Your task to perform on an android device: turn notification dots off Image 0: 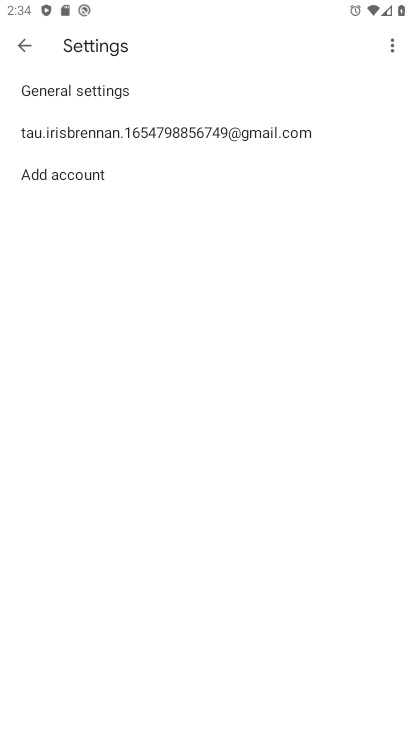
Step 0: press home button
Your task to perform on an android device: turn notification dots off Image 1: 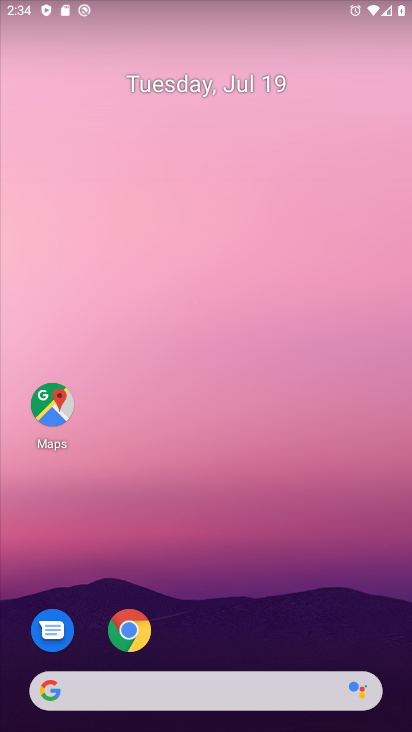
Step 1: drag from (246, 633) to (206, 115)
Your task to perform on an android device: turn notification dots off Image 2: 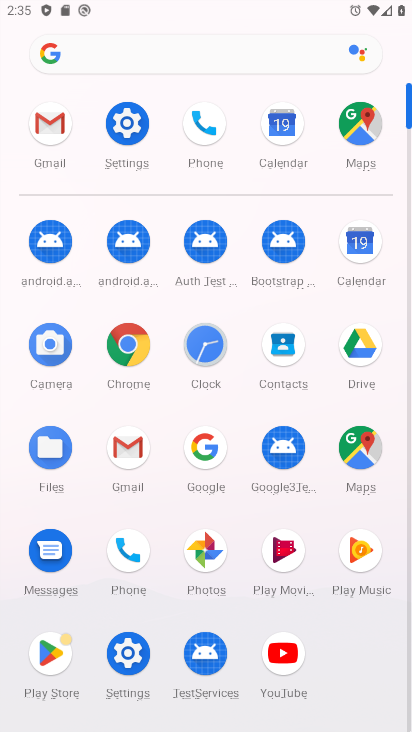
Step 2: click (132, 120)
Your task to perform on an android device: turn notification dots off Image 3: 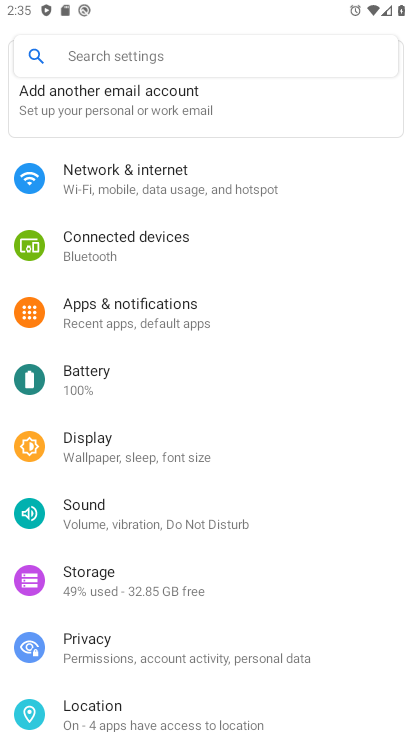
Step 3: click (160, 310)
Your task to perform on an android device: turn notification dots off Image 4: 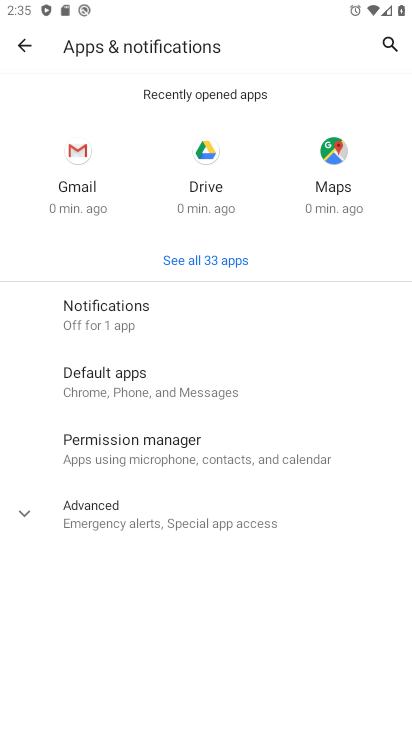
Step 4: click (128, 322)
Your task to perform on an android device: turn notification dots off Image 5: 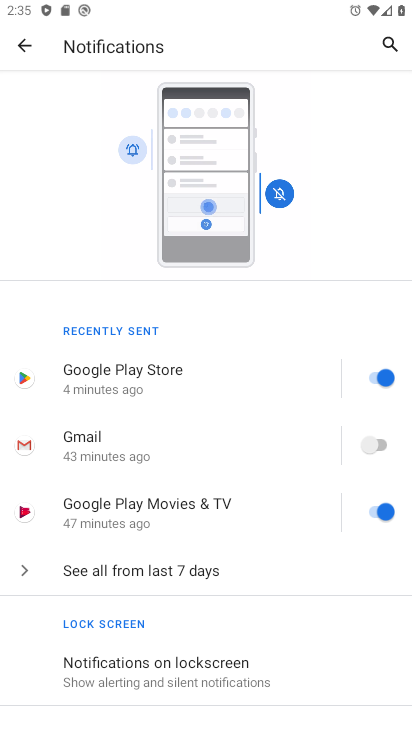
Step 5: drag from (245, 582) to (237, 162)
Your task to perform on an android device: turn notification dots off Image 6: 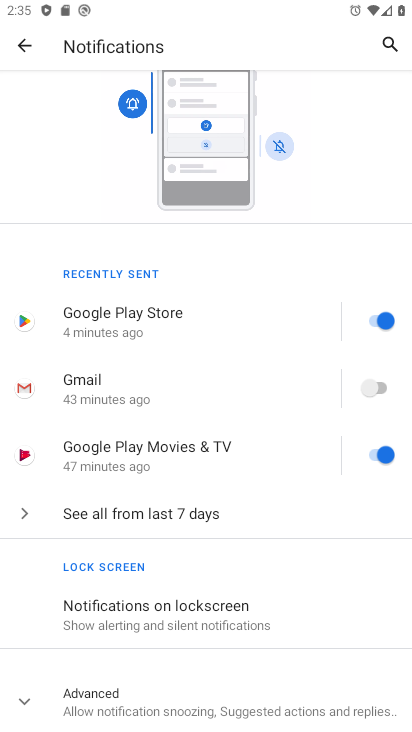
Step 6: click (18, 695)
Your task to perform on an android device: turn notification dots off Image 7: 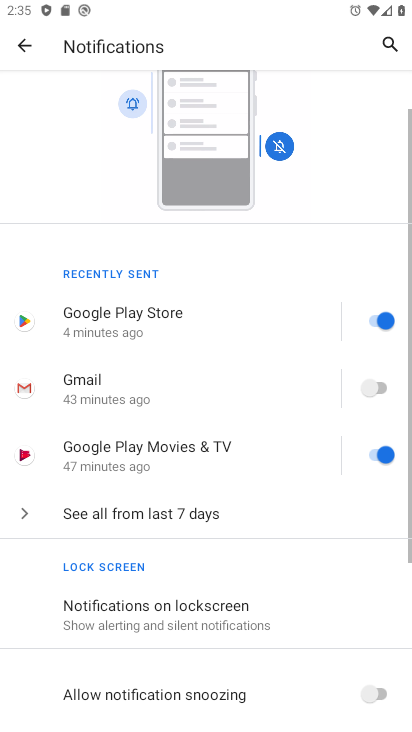
Step 7: drag from (185, 665) to (197, 360)
Your task to perform on an android device: turn notification dots off Image 8: 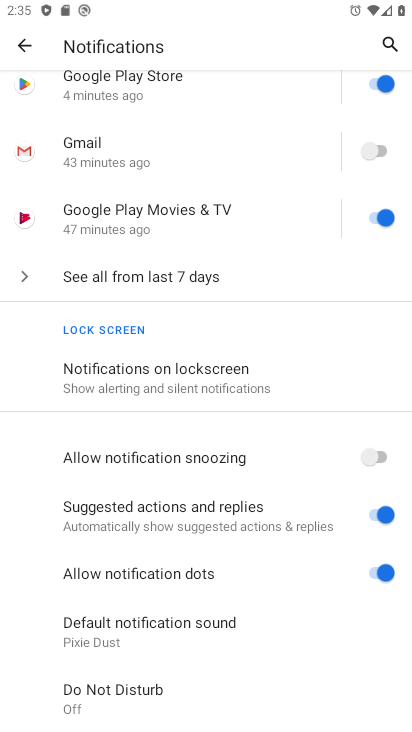
Step 8: click (371, 569)
Your task to perform on an android device: turn notification dots off Image 9: 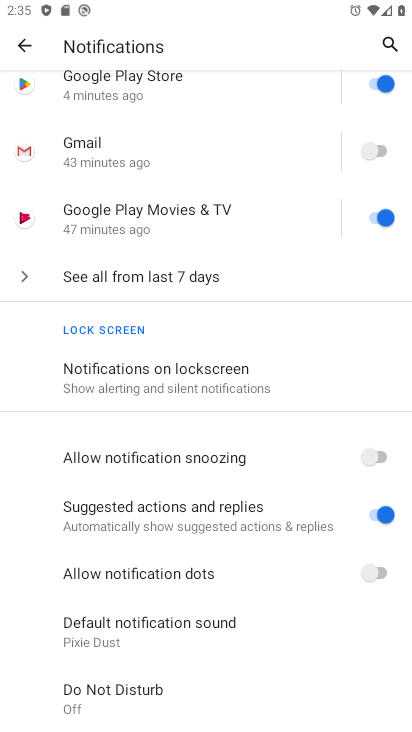
Step 9: task complete